Your task to perform on an android device: Open the map Image 0: 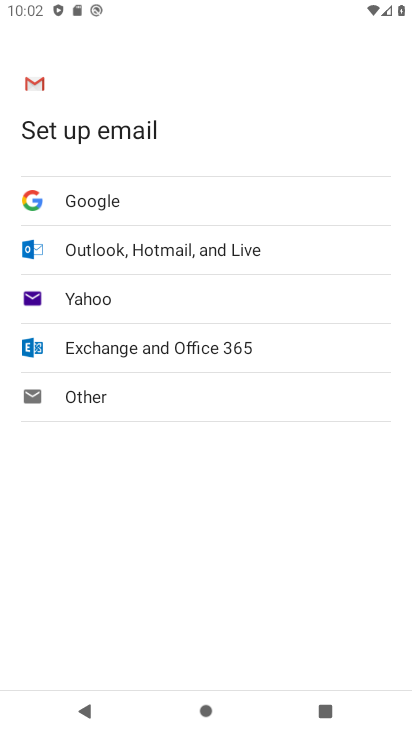
Step 0: press home button
Your task to perform on an android device: Open the map Image 1: 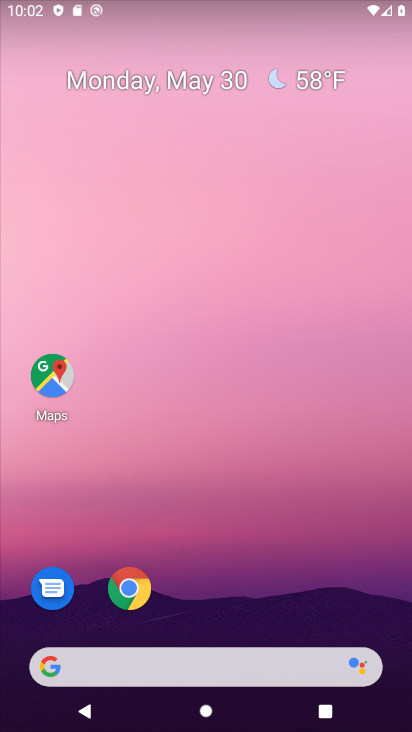
Step 1: click (45, 378)
Your task to perform on an android device: Open the map Image 2: 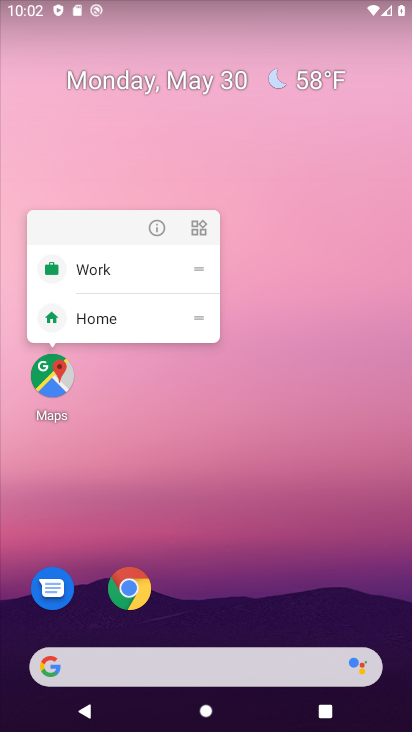
Step 2: click (57, 383)
Your task to perform on an android device: Open the map Image 3: 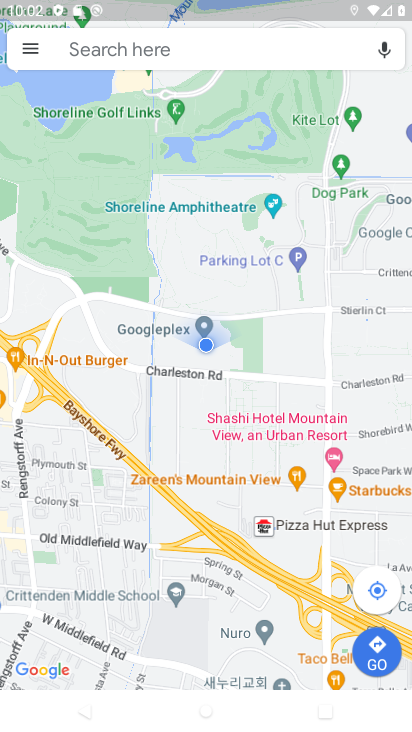
Step 3: task complete